Your task to perform on an android device: check storage Image 0: 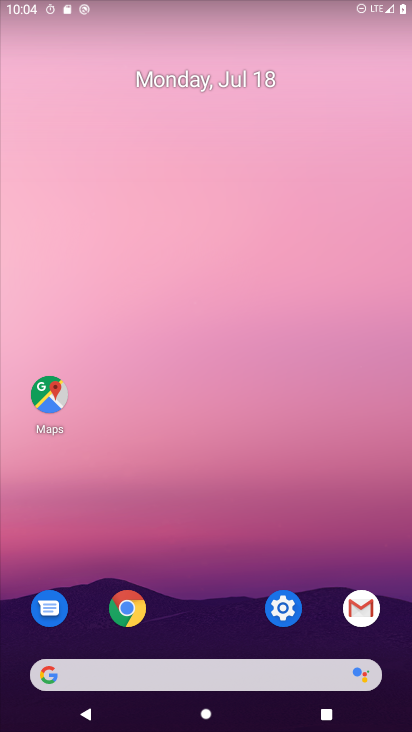
Step 0: press home button
Your task to perform on an android device: check storage Image 1: 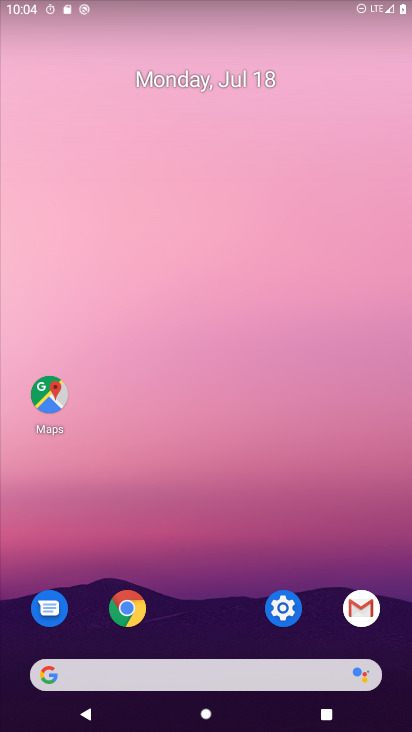
Step 1: click (274, 622)
Your task to perform on an android device: check storage Image 2: 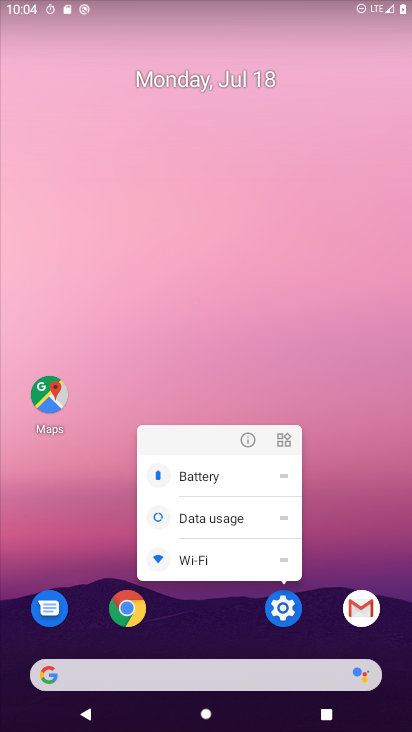
Step 2: click (279, 612)
Your task to perform on an android device: check storage Image 3: 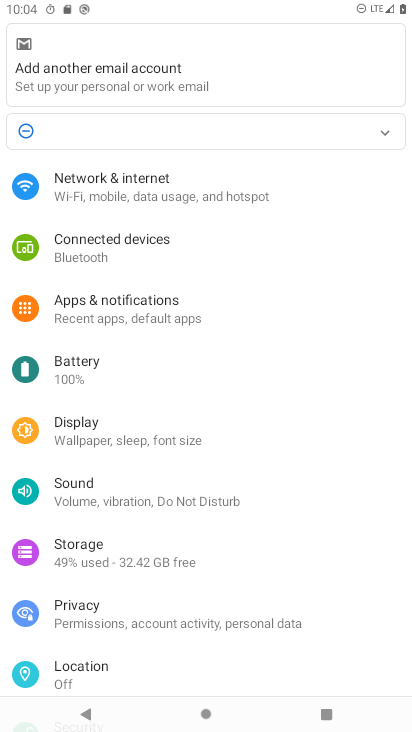
Step 3: drag from (135, 209) to (144, 277)
Your task to perform on an android device: check storage Image 4: 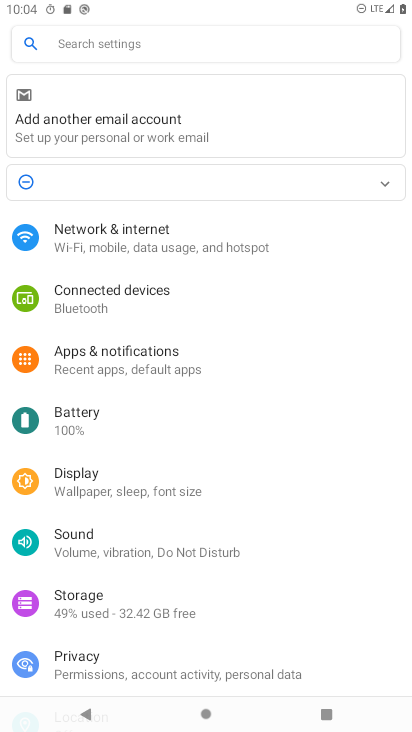
Step 4: click (91, 49)
Your task to perform on an android device: check storage Image 5: 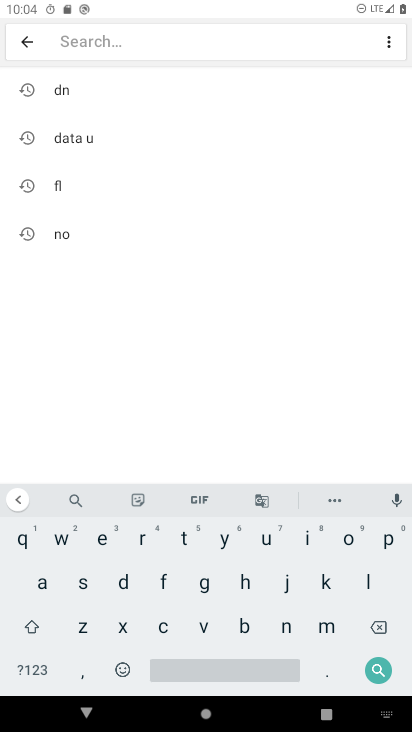
Step 5: click (84, 583)
Your task to perform on an android device: check storage Image 6: 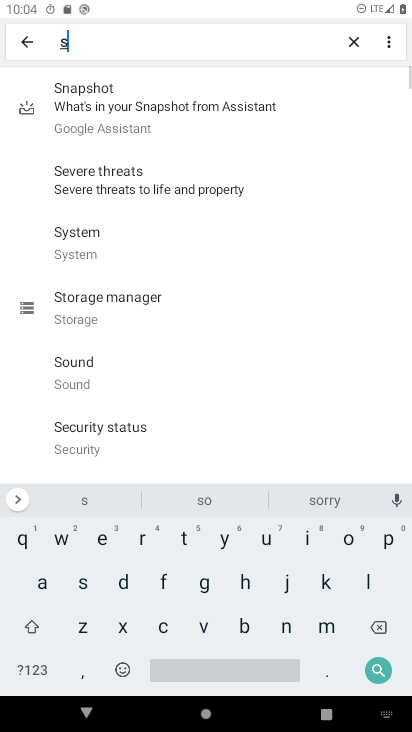
Step 6: click (187, 537)
Your task to perform on an android device: check storage Image 7: 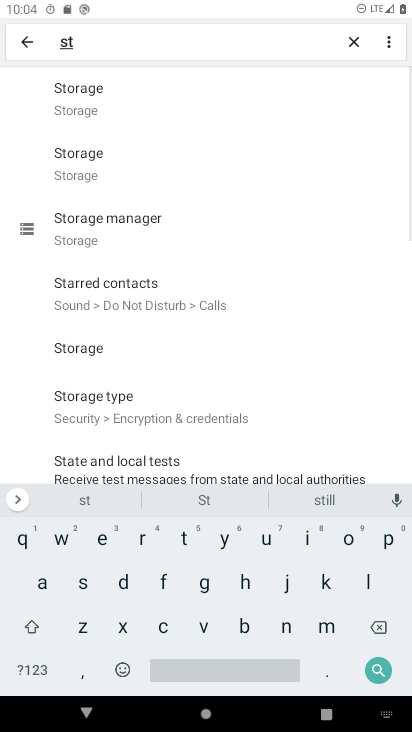
Step 7: click (142, 113)
Your task to perform on an android device: check storage Image 8: 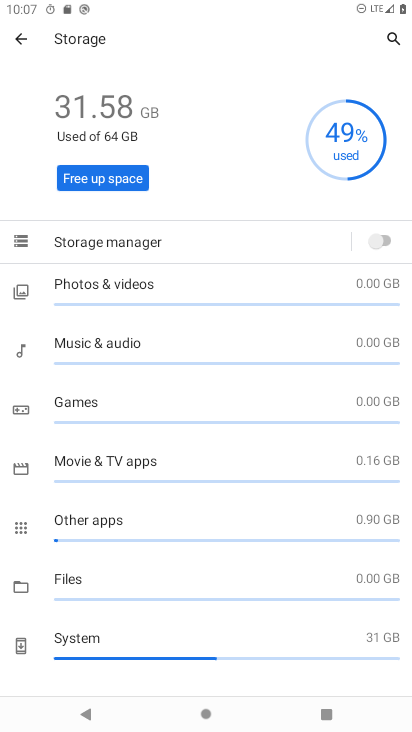
Step 8: task complete